Your task to perform on an android device: move an email to a new category in the gmail app Image 0: 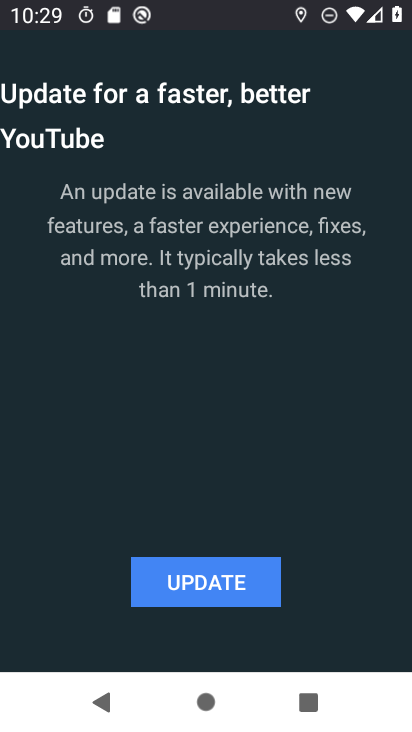
Step 0: press home button
Your task to perform on an android device: move an email to a new category in the gmail app Image 1: 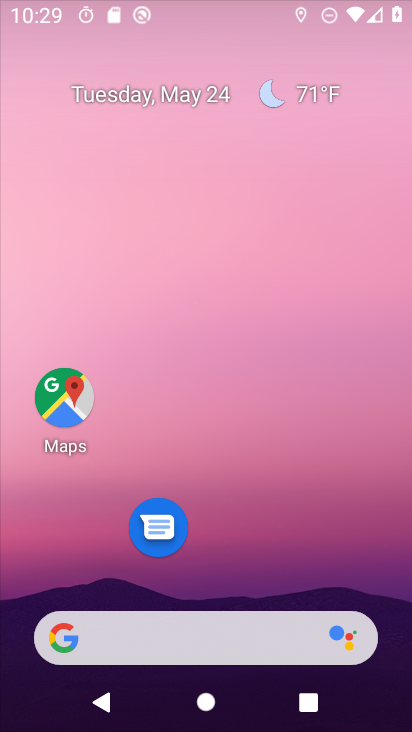
Step 1: drag from (253, 566) to (285, 77)
Your task to perform on an android device: move an email to a new category in the gmail app Image 2: 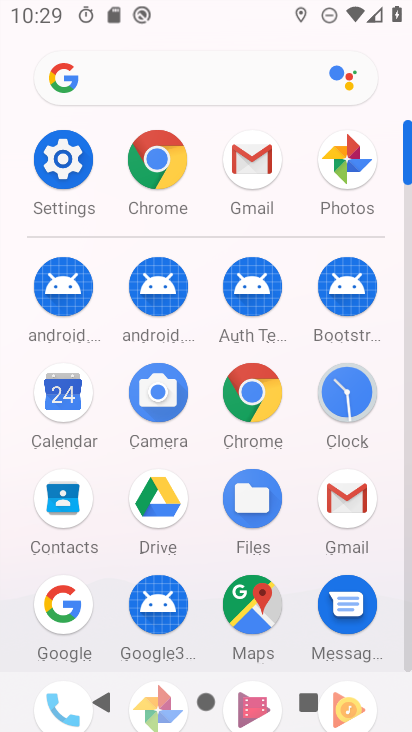
Step 2: click (352, 499)
Your task to perform on an android device: move an email to a new category in the gmail app Image 3: 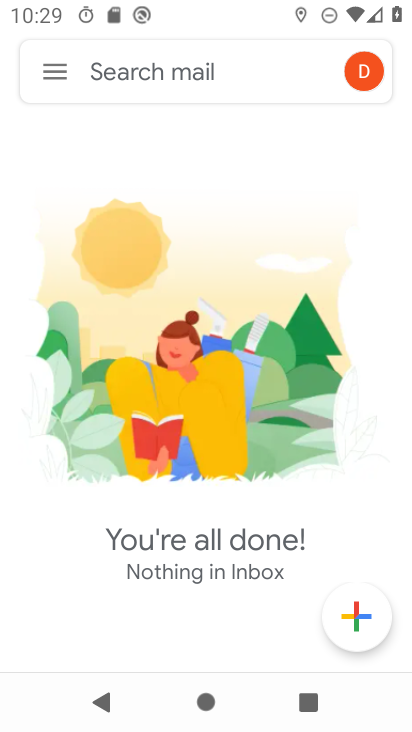
Step 3: click (56, 71)
Your task to perform on an android device: move an email to a new category in the gmail app Image 4: 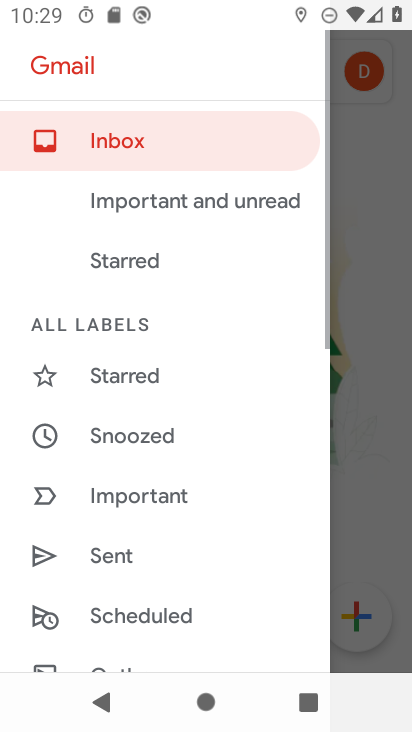
Step 4: drag from (178, 534) to (204, 239)
Your task to perform on an android device: move an email to a new category in the gmail app Image 5: 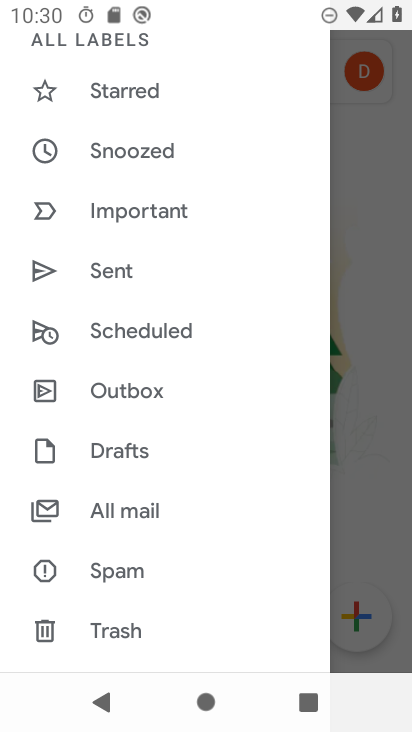
Step 5: click (148, 512)
Your task to perform on an android device: move an email to a new category in the gmail app Image 6: 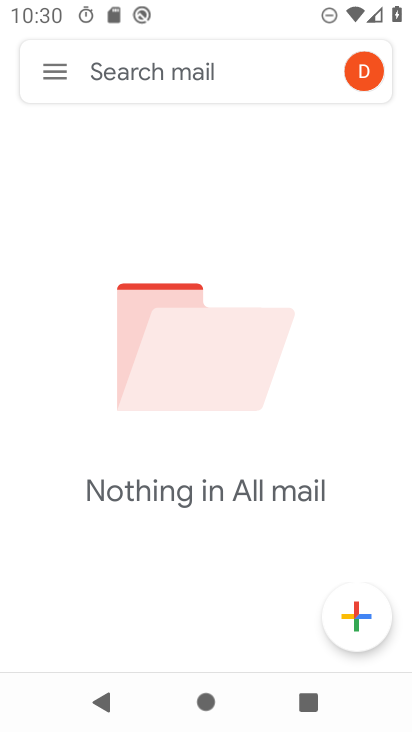
Step 6: task complete